Your task to perform on an android device: What's the weather today? Image 0: 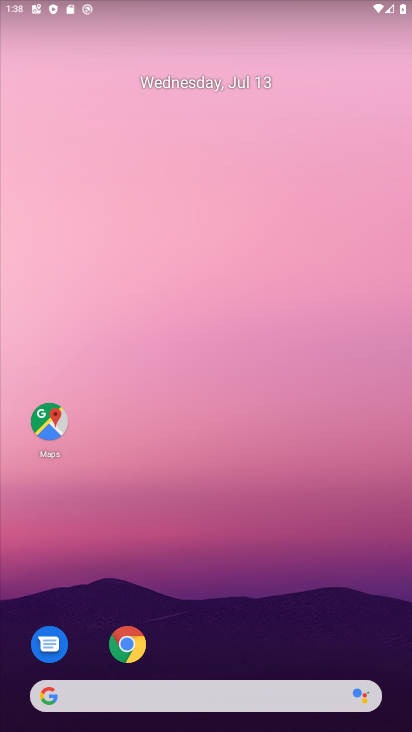
Step 0: click (205, 682)
Your task to perform on an android device: What's the weather today? Image 1: 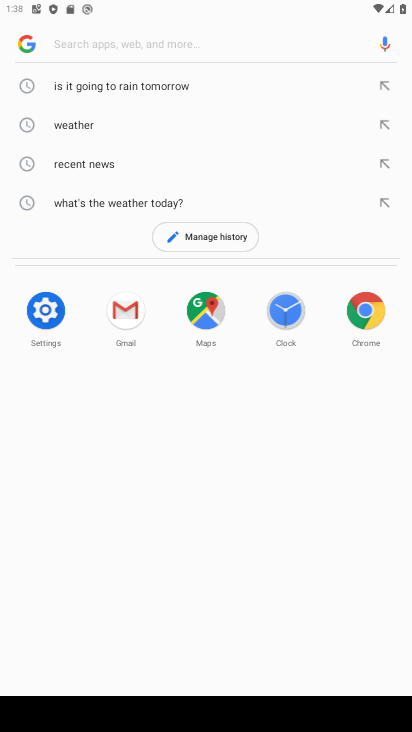
Step 1: type "what's the weather today?"
Your task to perform on an android device: What's the weather today? Image 2: 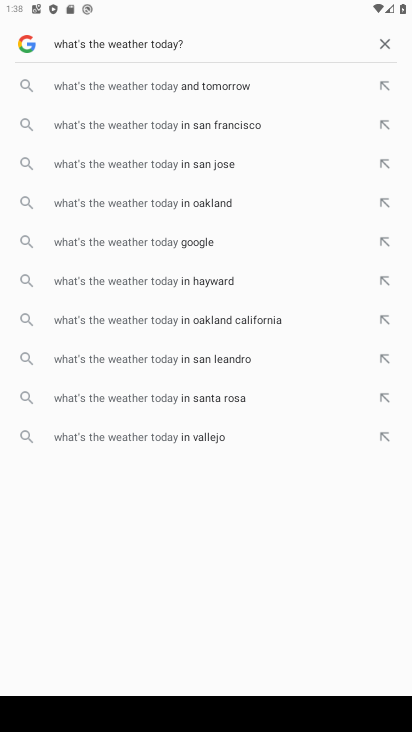
Step 2: click (212, 246)
Your task to perform on an android device: What's the weather today? Image 3: 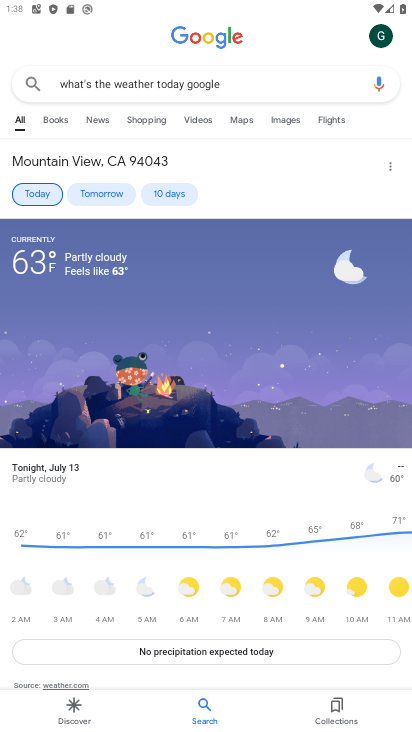
Step 3: task complete